Your task to perform on an android device: Open calendar and show me the second week of next month Image 0: 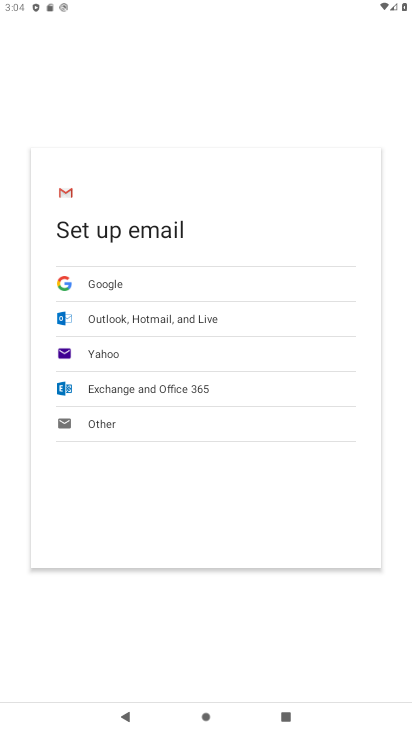
Step 0: press home button
Your task to perform on an android device: Open calendar and show me the second week of next month Image 1: 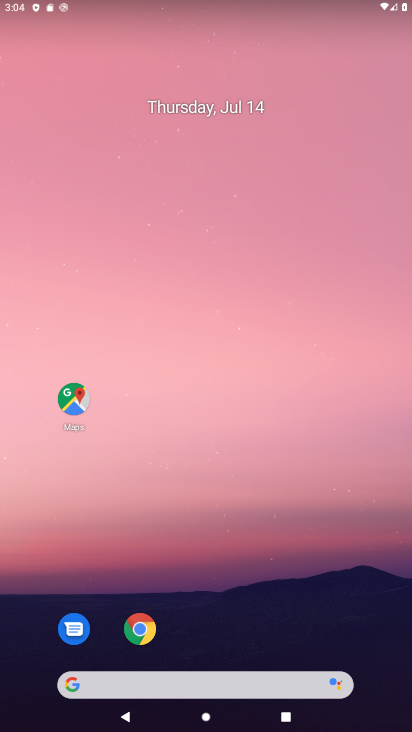
Step 1: drag from (335, 550) to (175, 28)
Your task to perform on an android device: Open calendar and show me the second week of next month Image 2: 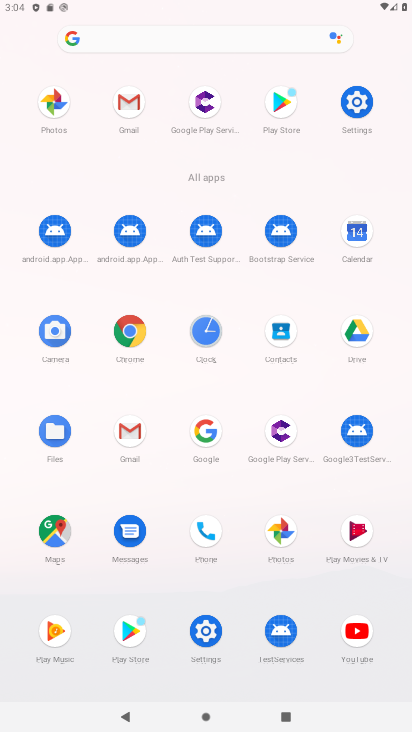
Step 2: click (365, 230)
Your task to perform on an android device: Open calendar and show me the second week of next month Image 3: 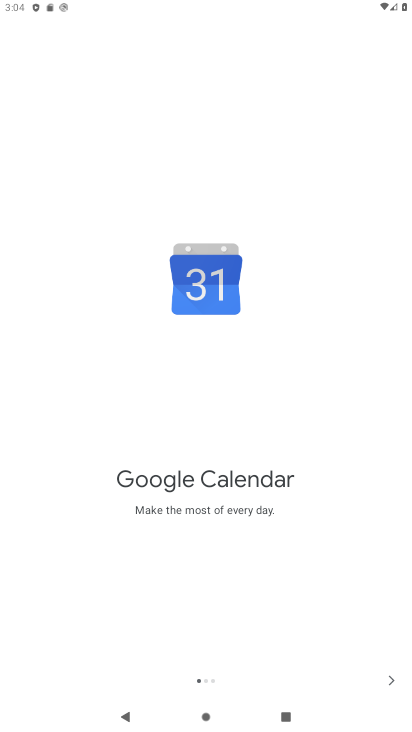
Step 3: click (391, 679)
Your task to perform on an android device: Open calendar and show me the second week of next month Image 4: 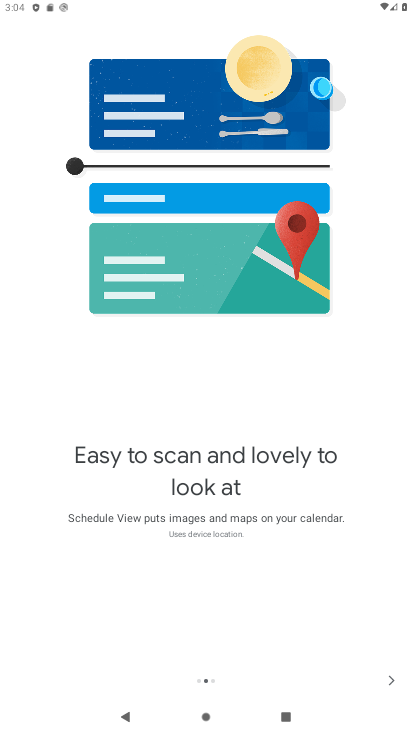
Step 4: click (387, 676)
Your task to perform on an android device: Open calendar and show me the second week of next month Image 5: 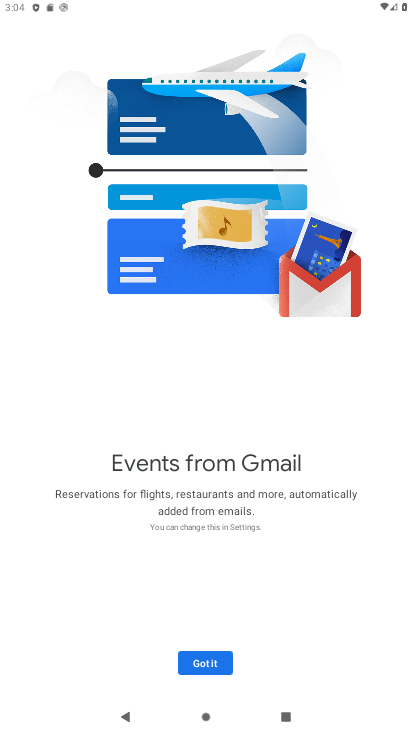
Step 5: click (187, 644)
Your task to perform on an android device: Open calendar and show me the second week of next month Image 6: 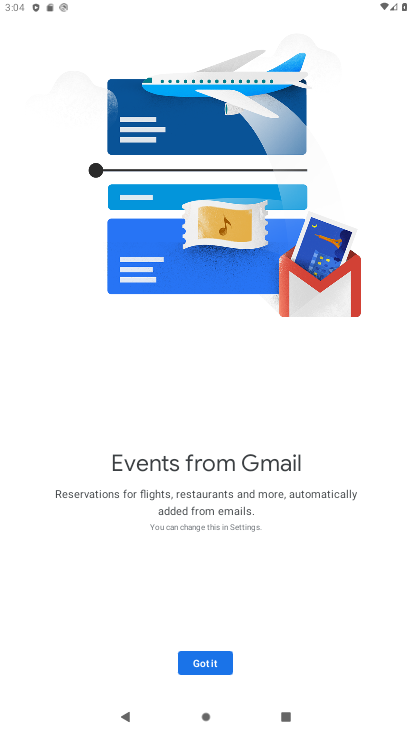
Step 6: click (201, 660)
Your task to perform on an android device: Open calendar and show me the second week of next month Image 7: 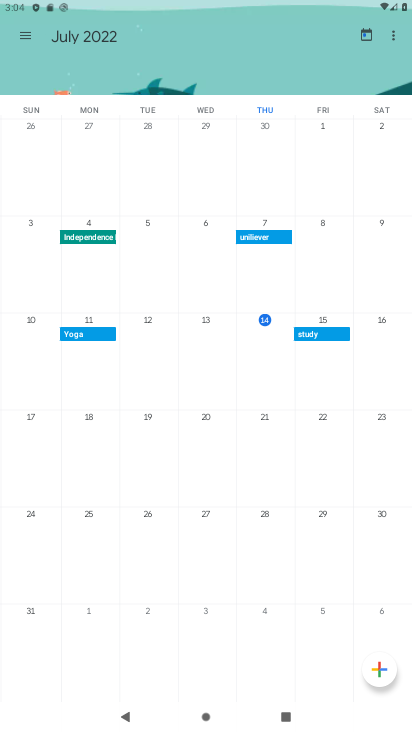
Step 7: drag from (310, 391) to (27, 414)
Your task to perform on an android device: Open calendar and show me the second week of next month Image 8: 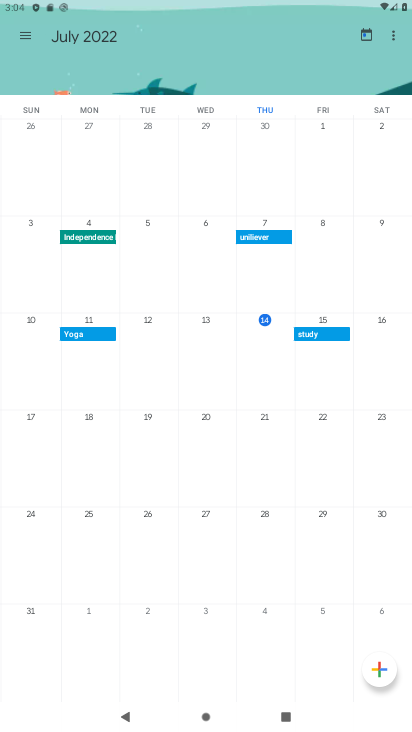
Step 8: click (264, 423)
Your task to perform on an android device: Open calendar and show me the second week of next month Image 9: 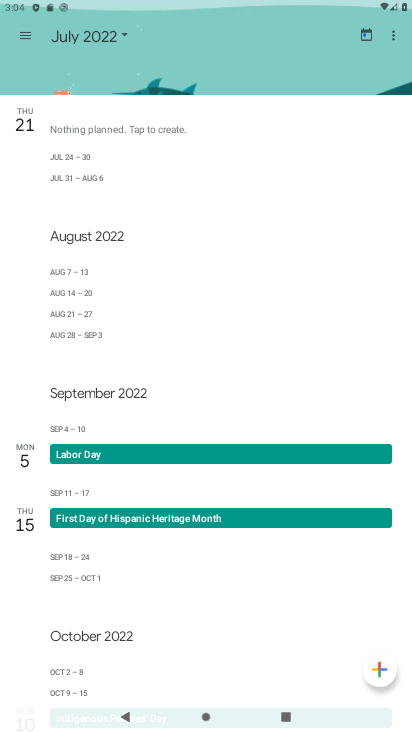
Step 9: task complete